Your task to perform on an android device: add a contact Image 0: 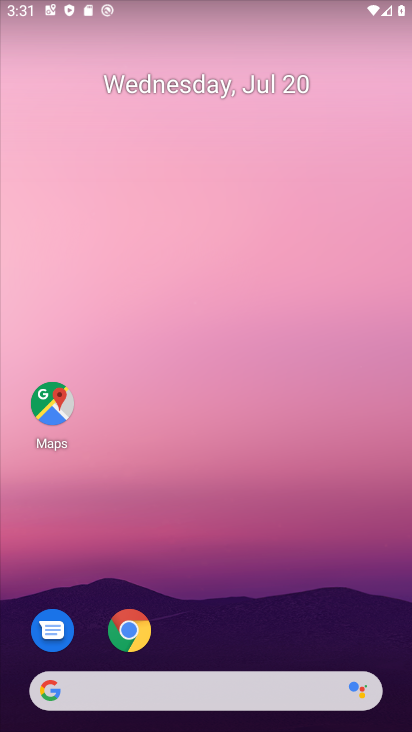
Step 0: press home button
Your task to perform on an android device: add a contact Image 1: 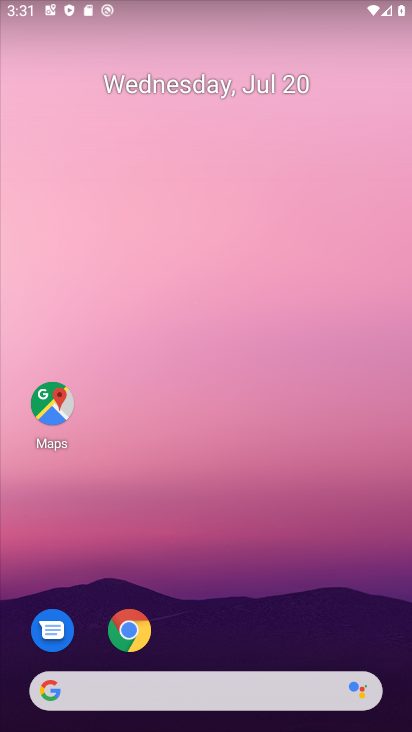
Step 1: drag from (206, 645) to (237, 135)
Your task to perform on an android device: add a contact Image 2: 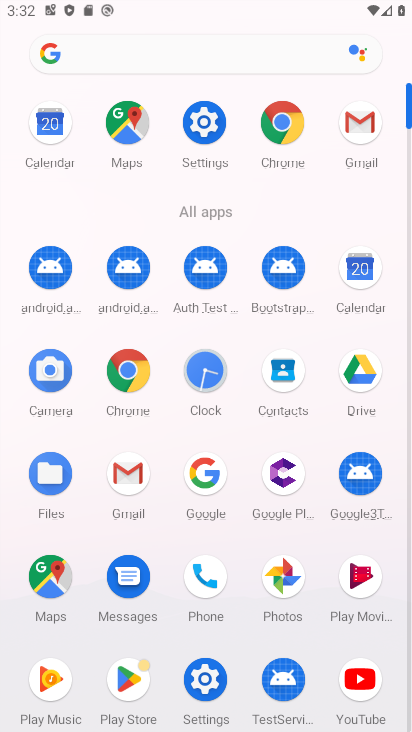
Step 2: click (277, 362)
Your task to perform on an android device: add a contact Image 3: 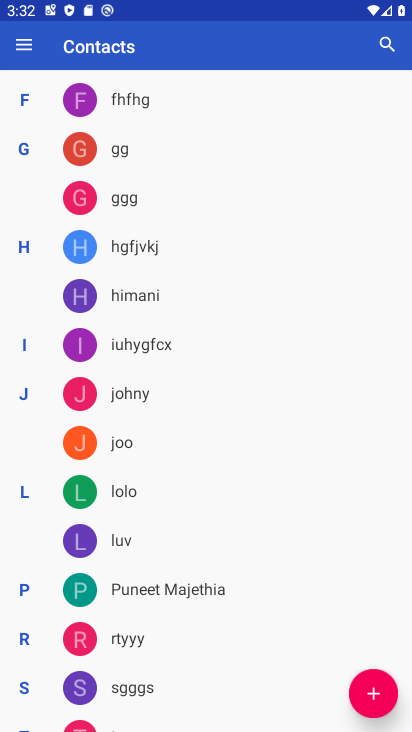
Step 3: click (376, 694)
Your task to perform on an android device: add a contact Image 4: 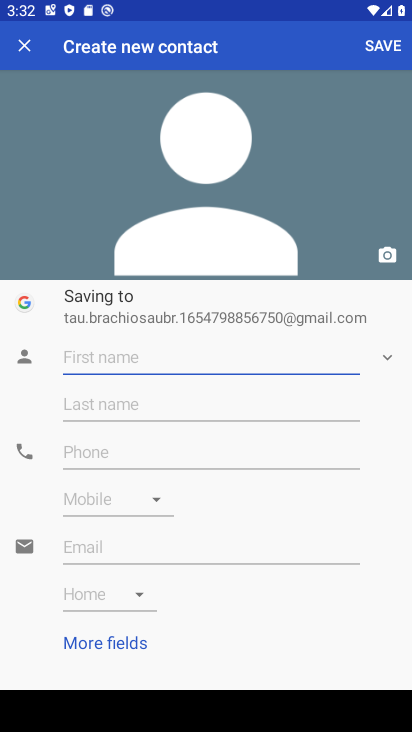
Step 4: type "aprnkt"
Your task to perform on an android device: add a contact Image 5: 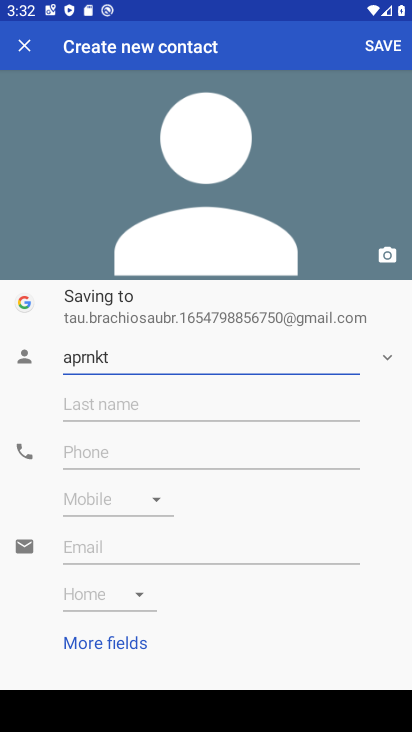
Step 5: click (371, 44)
Your task to perform on an android device: add a contact Image 6: 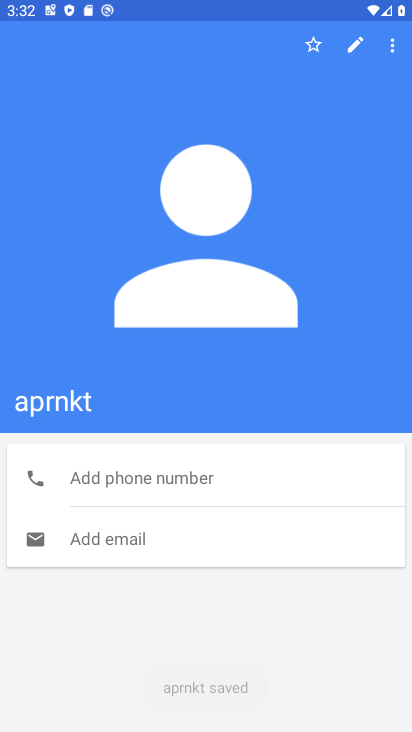
Step 6: task complete